Your task to perform on an android device: Add logitech g910 to the cart on walmart Image 0: 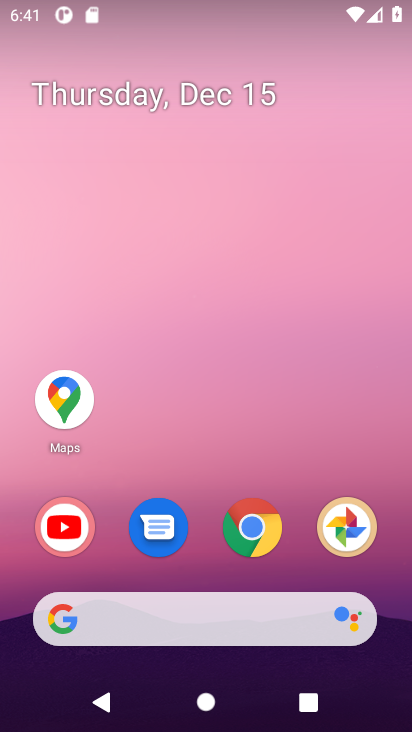
Step 0: click (247, 549)
Your task to perform on an android device: Add logitech g910 to the cart on walmart Image 1: 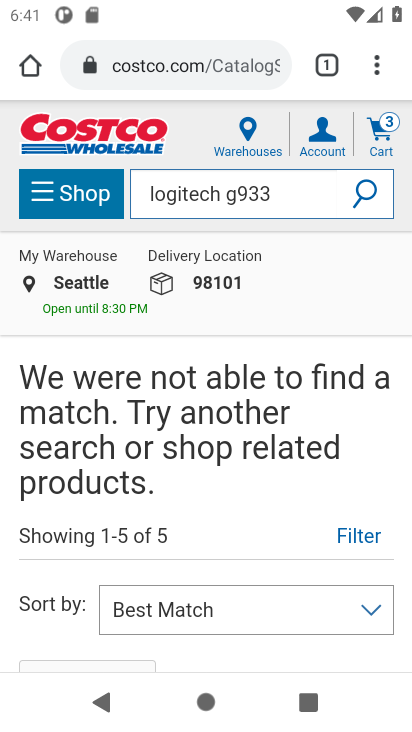
Step 1: click (155, 53)
Your task to perform on an android device: Add logitech g910 to the cart on walmart Image 2: 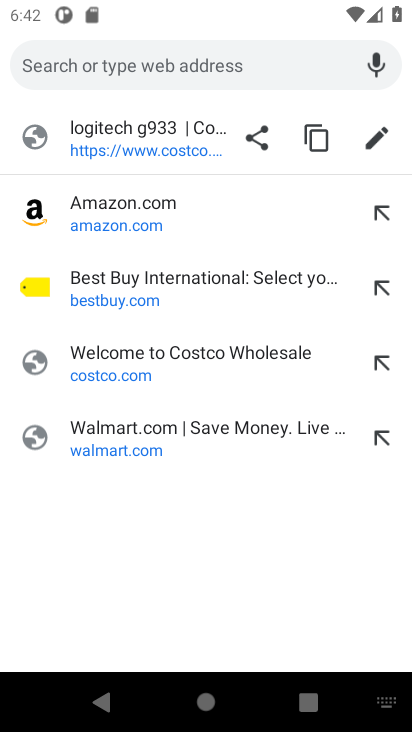
Step 2: click (161, 440)
Your task to perform on an android device: Add logitech g910 to the cart on walmart Image 3: 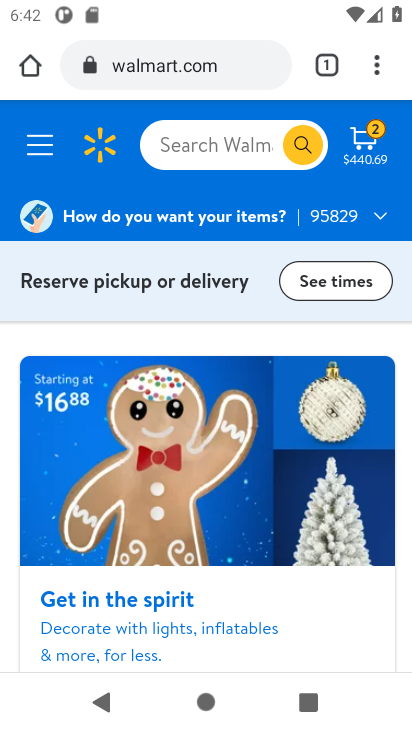
Step 3: click (197, 154)
Your task to perform on an android device: Add logitech g910 to the cart on walmart Image 4: 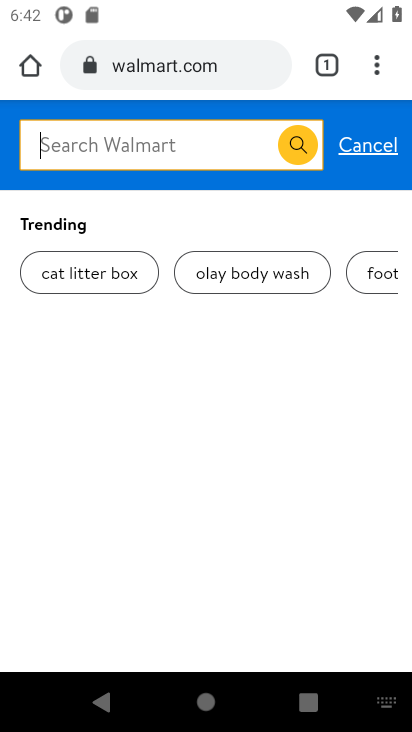
Step 4: type "logitech g910"
Your task to perform on an android device: Add logitech g910 to the cart on walmart Image 5: 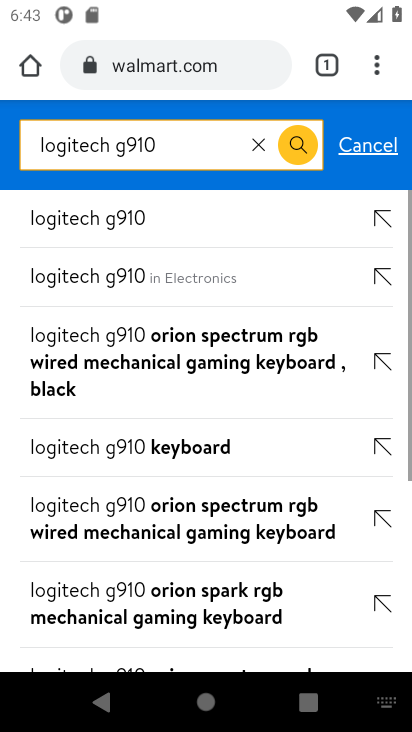
Step 5: click (199, 258)
Your task to perform on an android device: Add logitech g910 to the cart on walmart Image 6: 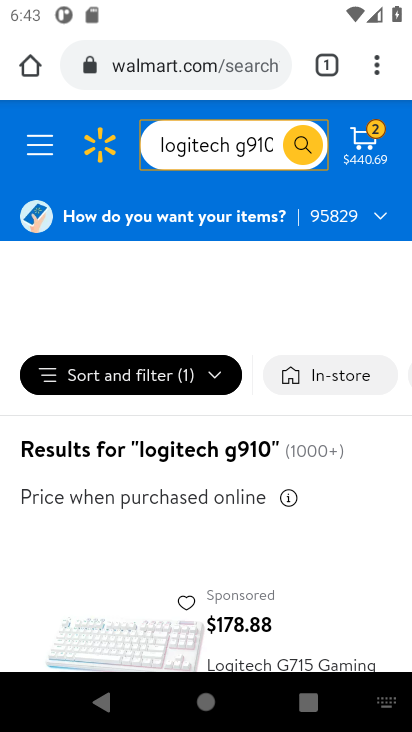
Step 6: drag from (263, 537) to (303, 276)
Your task to perform on an android device: Add logitech g910 to the cart on walmart Image 7: 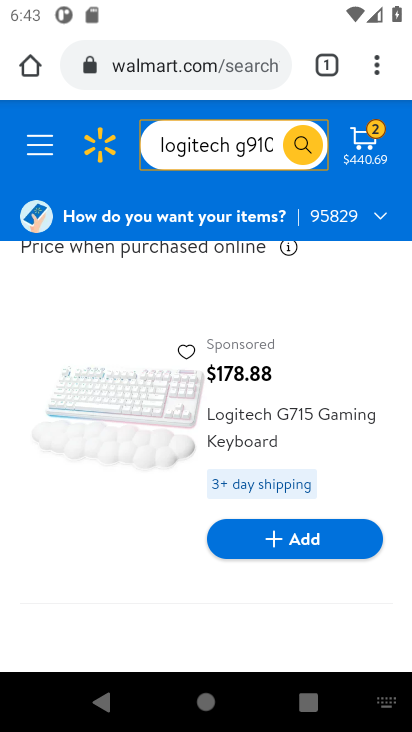
Step 7: click (259, 550)
Your task to perform on an android device: Add logitech g910 to the cart on walmart Image 8: 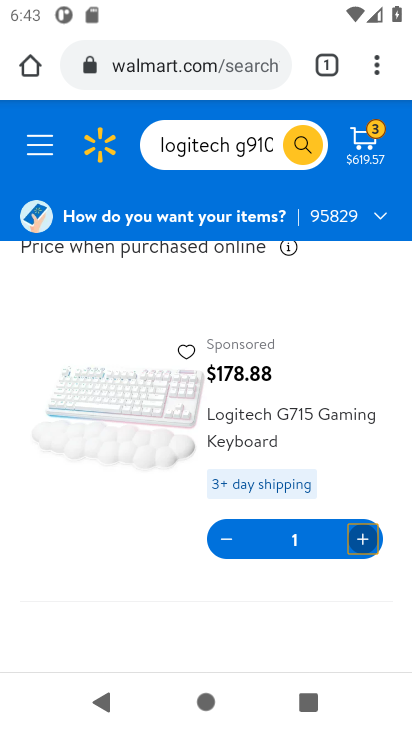
Step 8: task complete